Your task to perform on an android device: Do I have any events this weekend? Image 0: 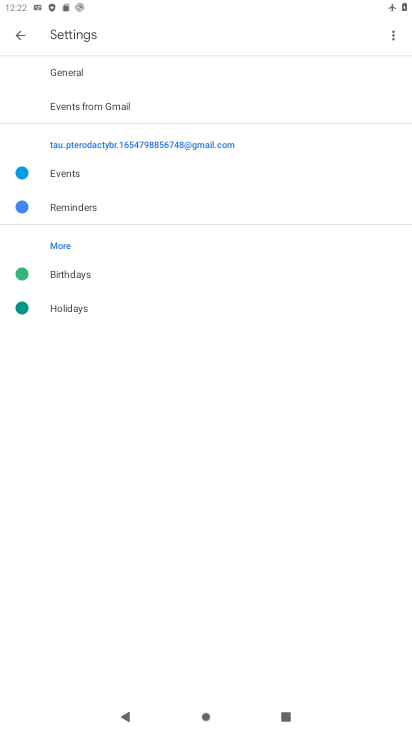
Step 0: press home button
Your task to perform on an android device: Do I have any events this weekend? Image 1: 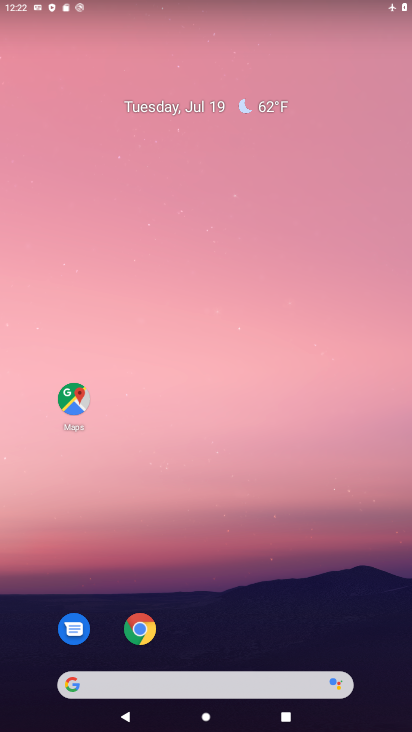
Step 1: drag from (236, 645) to (361, 2)
Your task to perform on an android device: Do I have any events this weekend? Image 2: 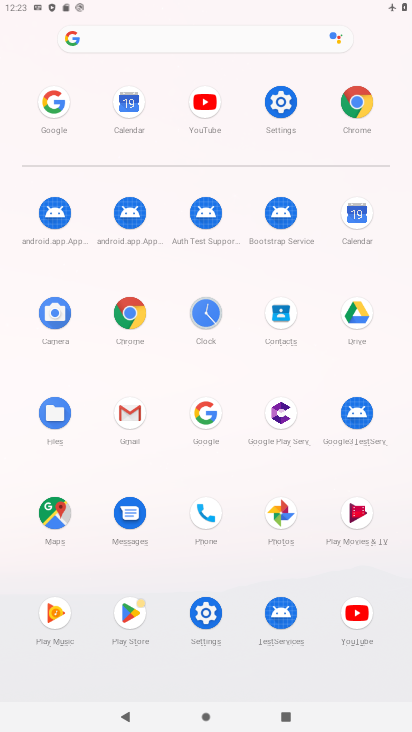
Step 2: click (355, 219)
Your task to perform on an android device: Do I have any events this weekend? Image 3: 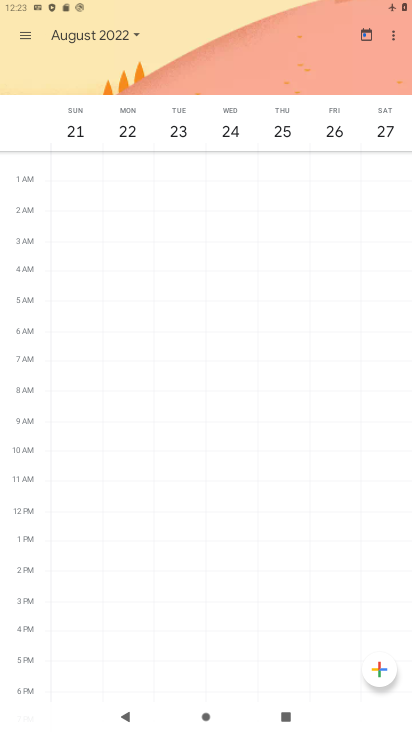
Step 3: click (359, 25)
Your task to perform on an android device: Do I have any events this weekend? Image 4: 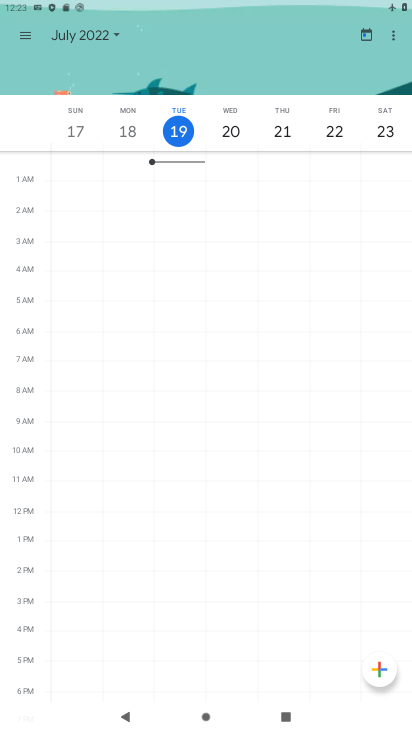
Step 4: task complete